Your task to perform on an android device: toggle notification dots Image 0: 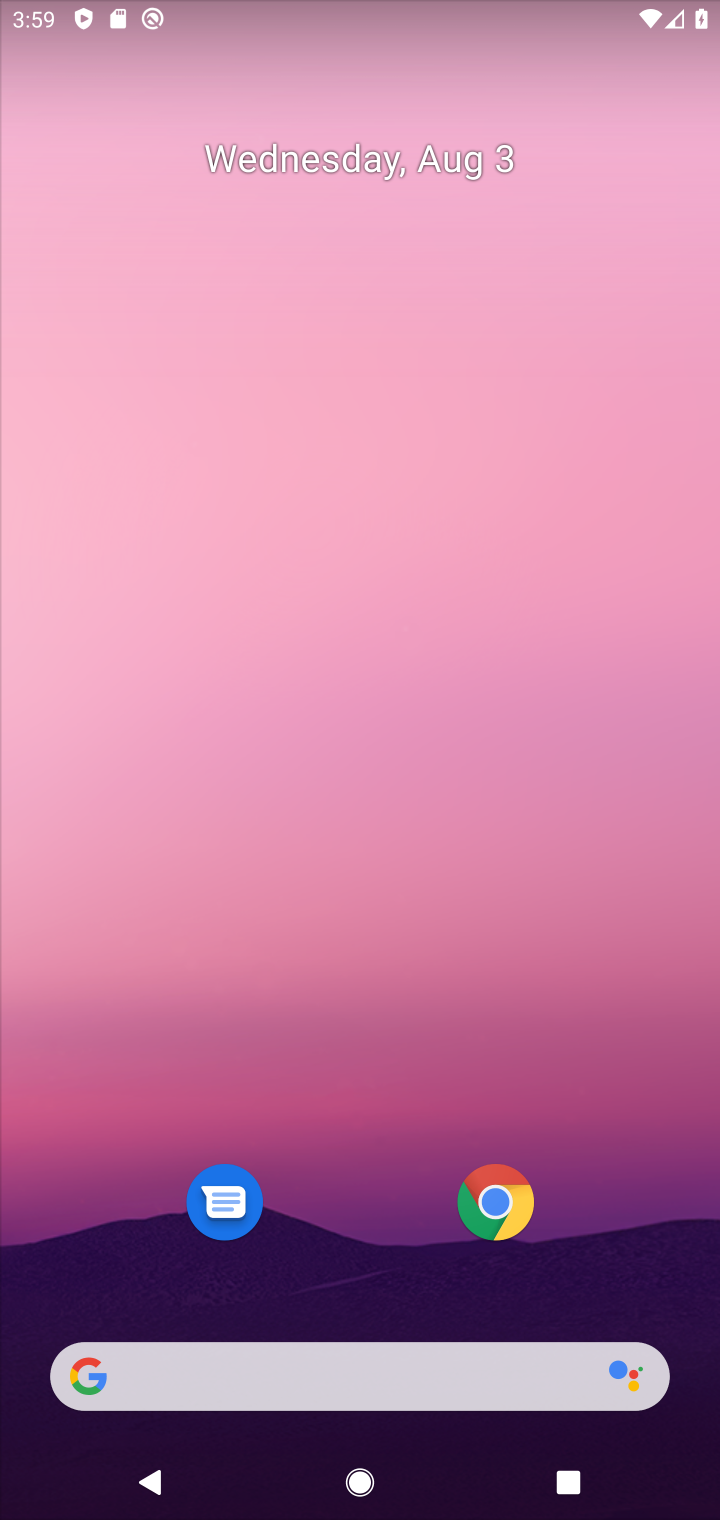
Step 0: drag from (468, 959) to (629, 125)
Your task to perform on an android device: toggle notification dots Image 1: 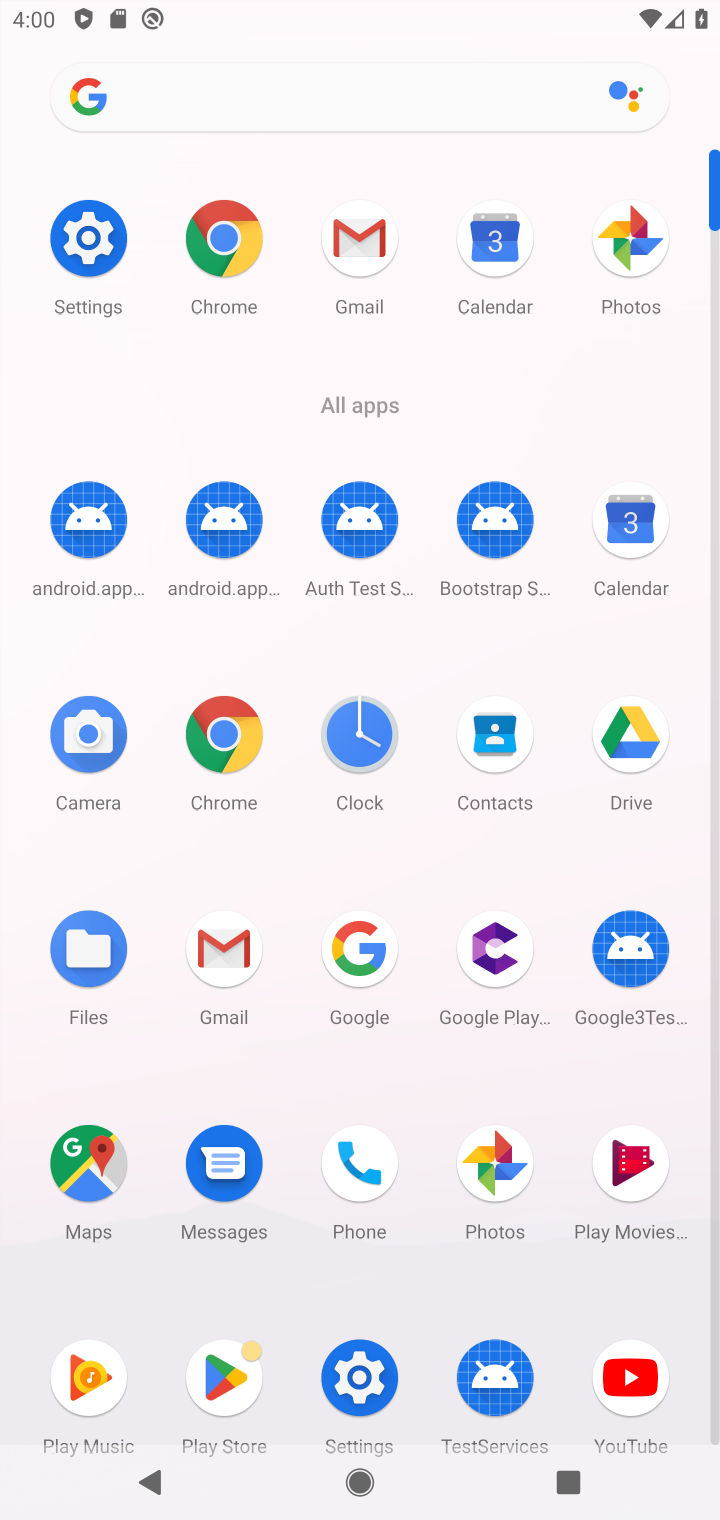
Step 1: click (98, 236)
Your task to perform on an android device: toggle notification dots Image 2: 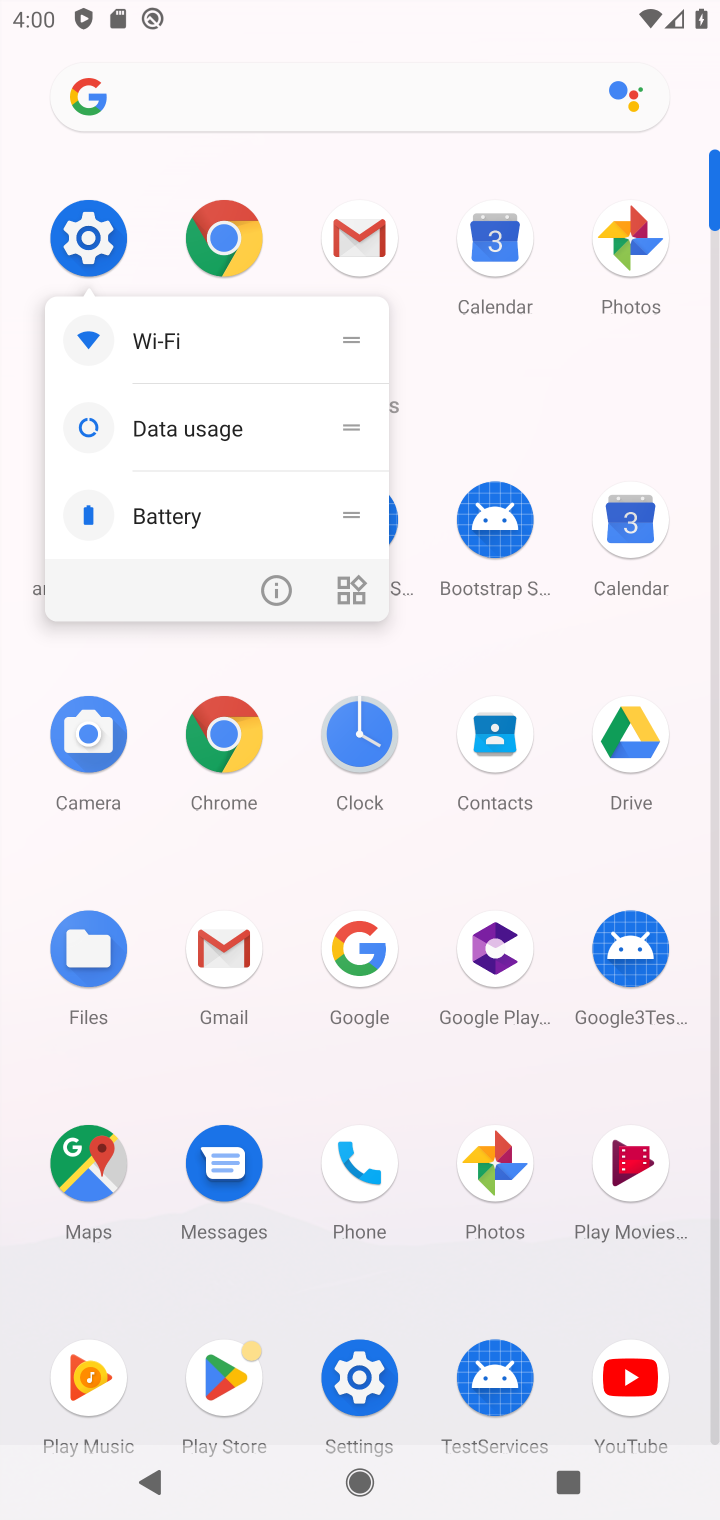
Step 2: click (80, 236)
Your task to perform on an android device: toggle notification dots Image 3: 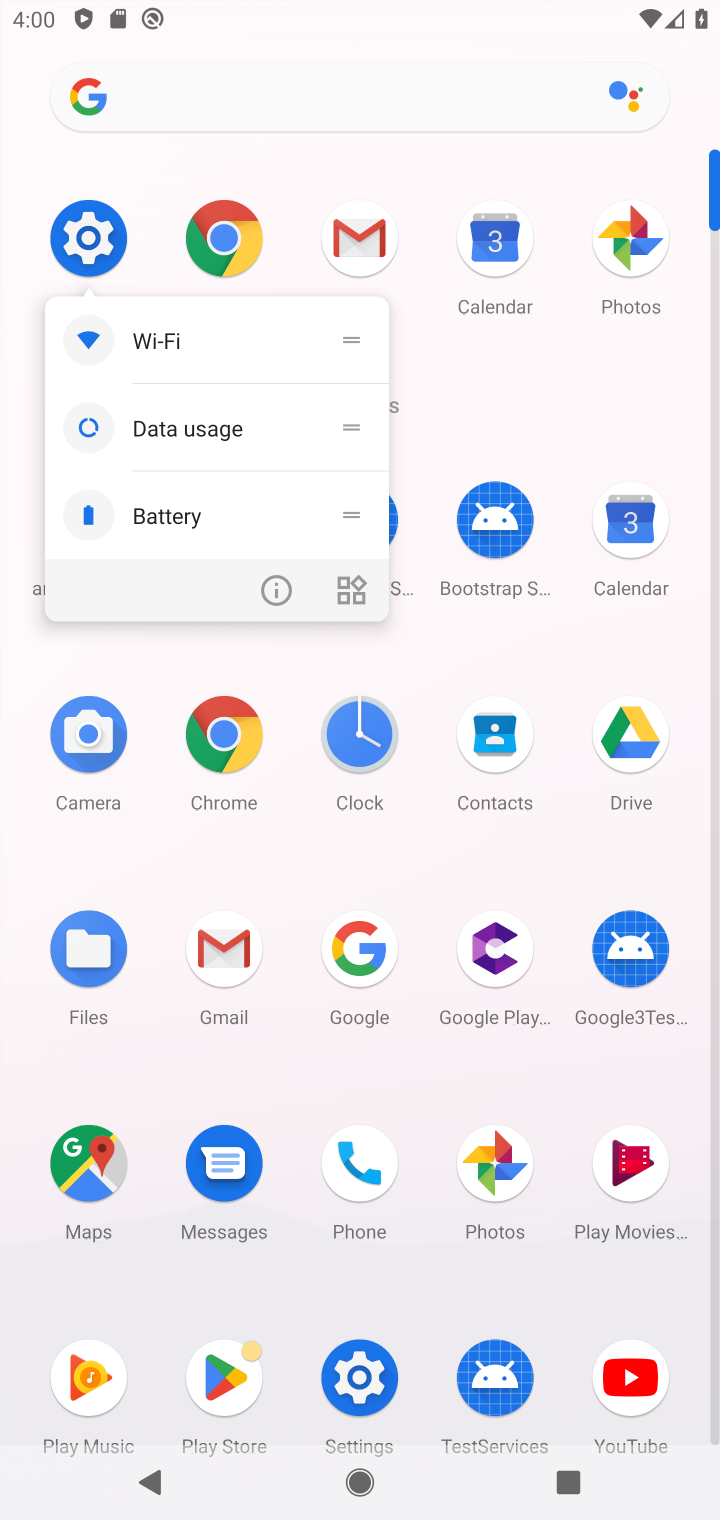
Step 3: click (94, 236)
Your task to perform on an android device: toggle notification dots Image 4: 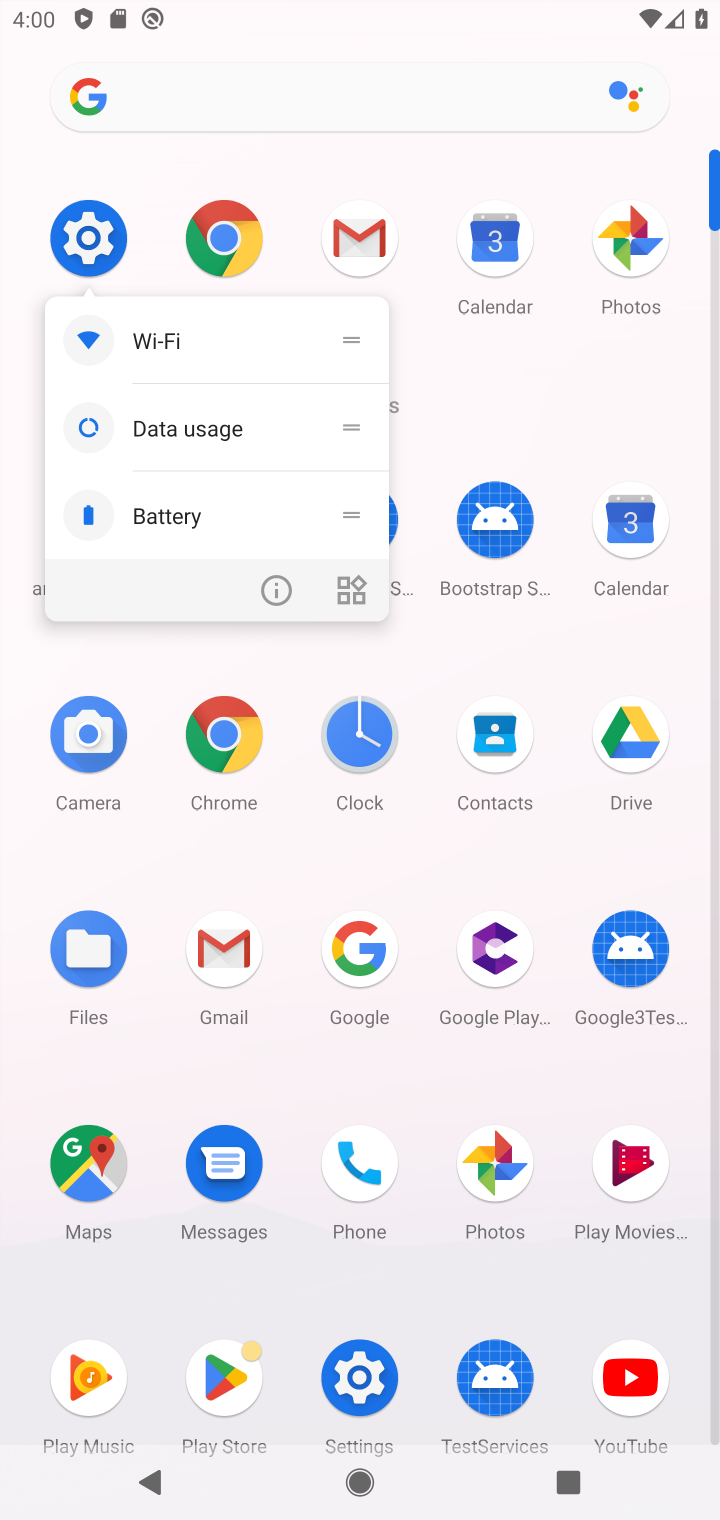
Step 4: click (94, 236)
Your task to perform on an android device: toggle notification dots Image 5: 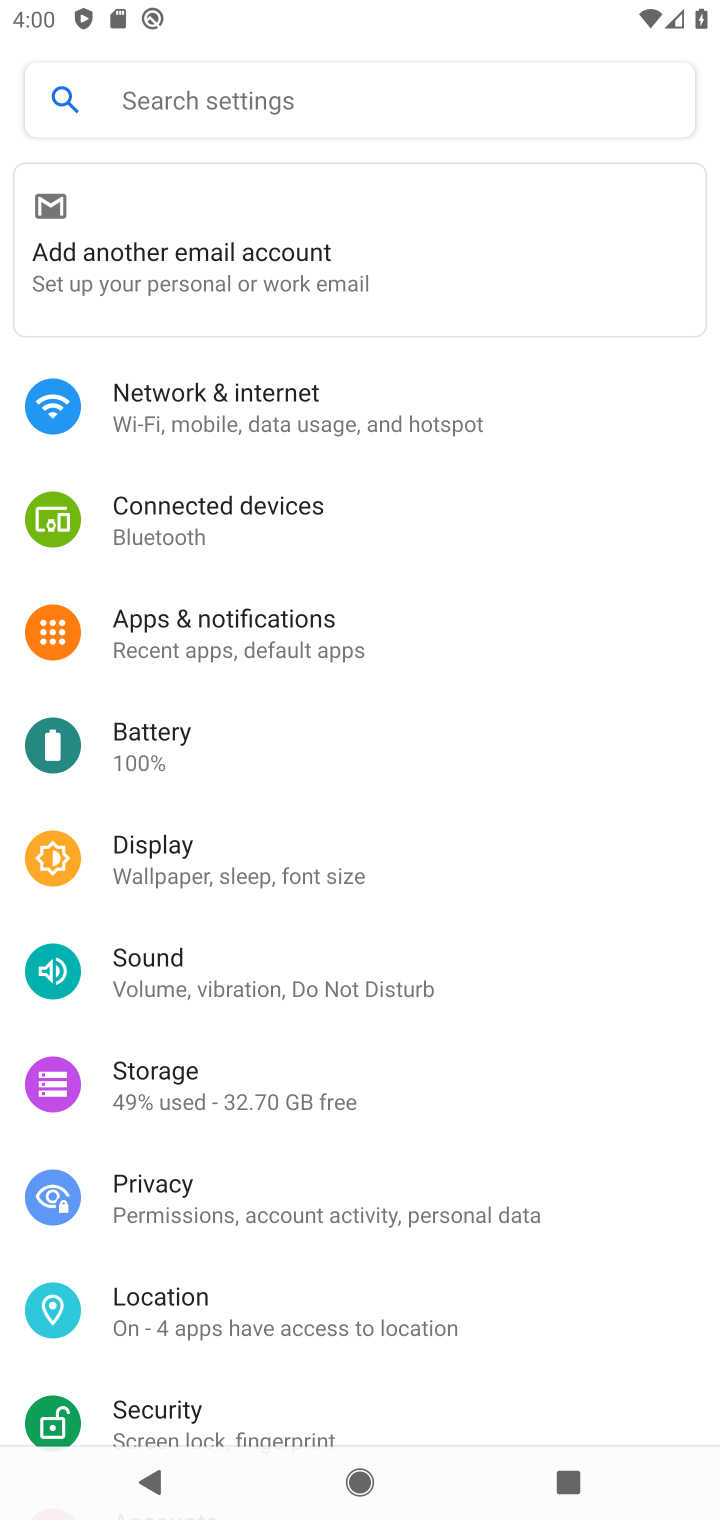
Step 5: click (282, 448)
Your task to perform on an android device: toggle notification dots Image 6: 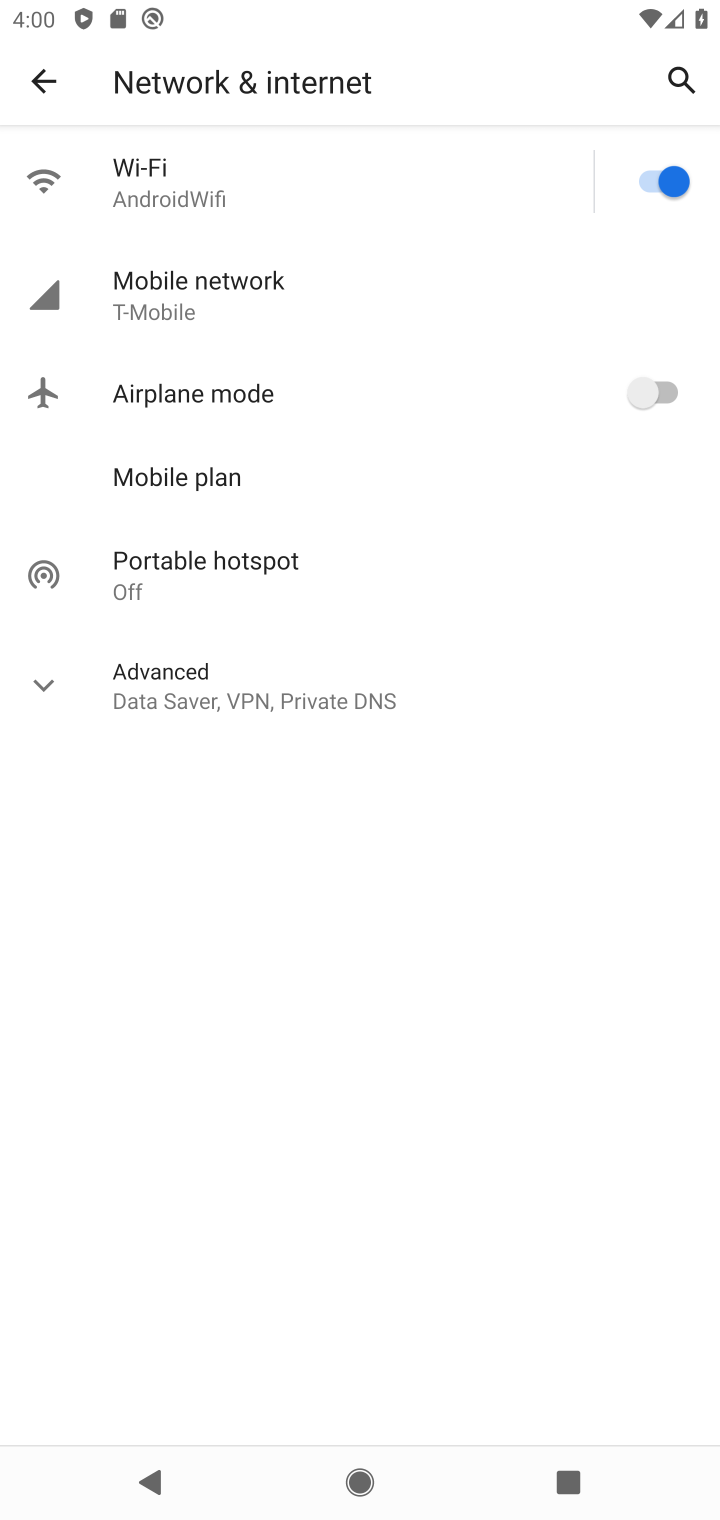
Step 6: click (59, 90)
Your task to perform on an android device: toggle notification dots Image 7: 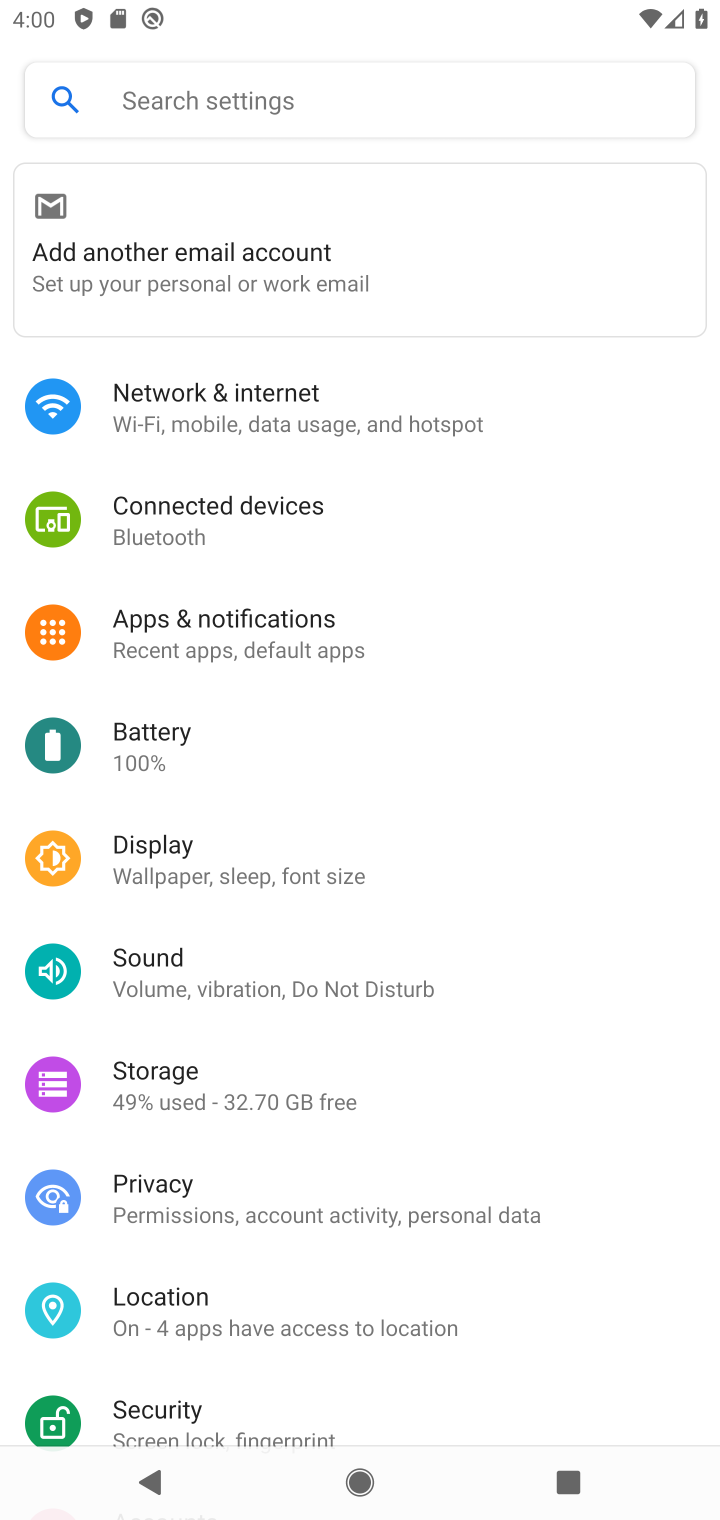
Step 7: click (249, 650)
Your task to perform on an android device: toggle notification dots Image 8: 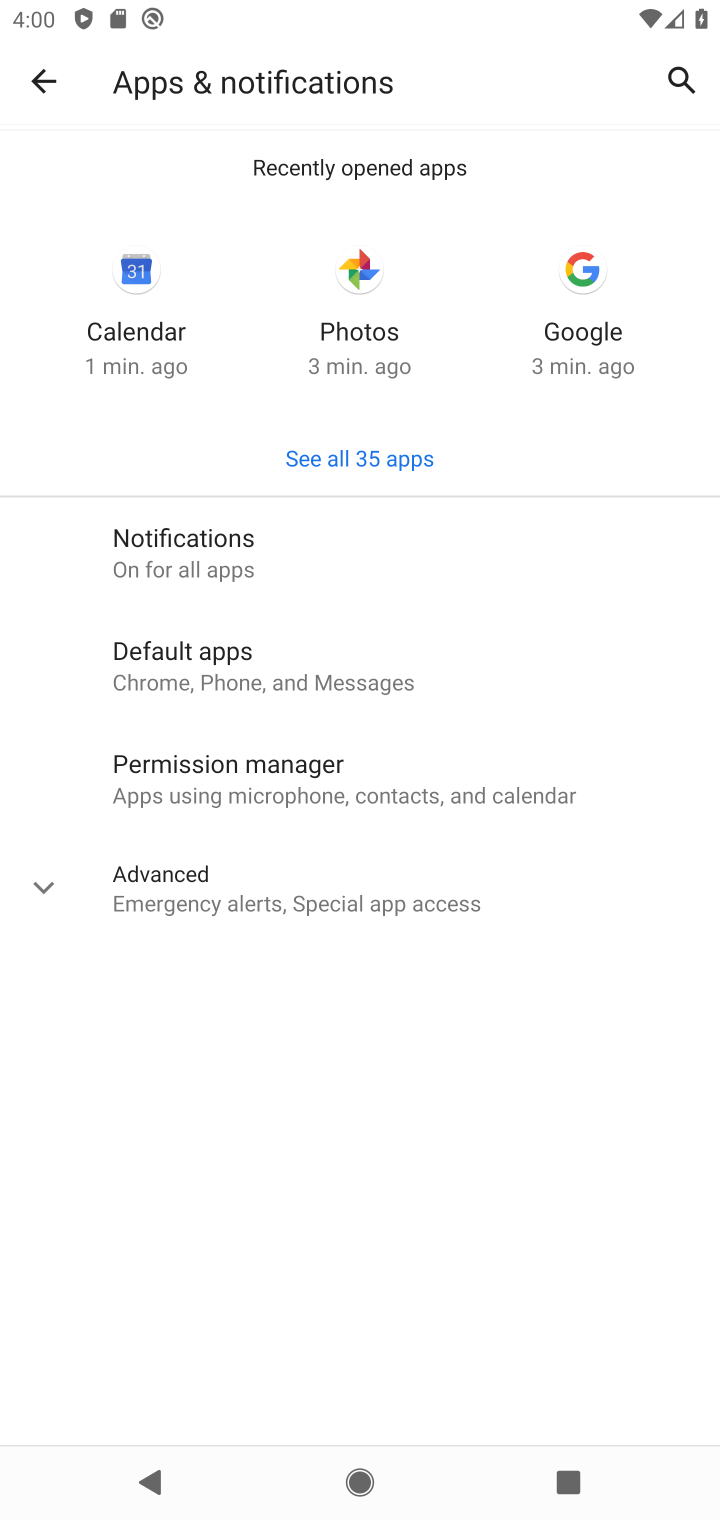
Step 8: click (278, 547)
Your task to perform on an android device: toggle notification dots Image 9: 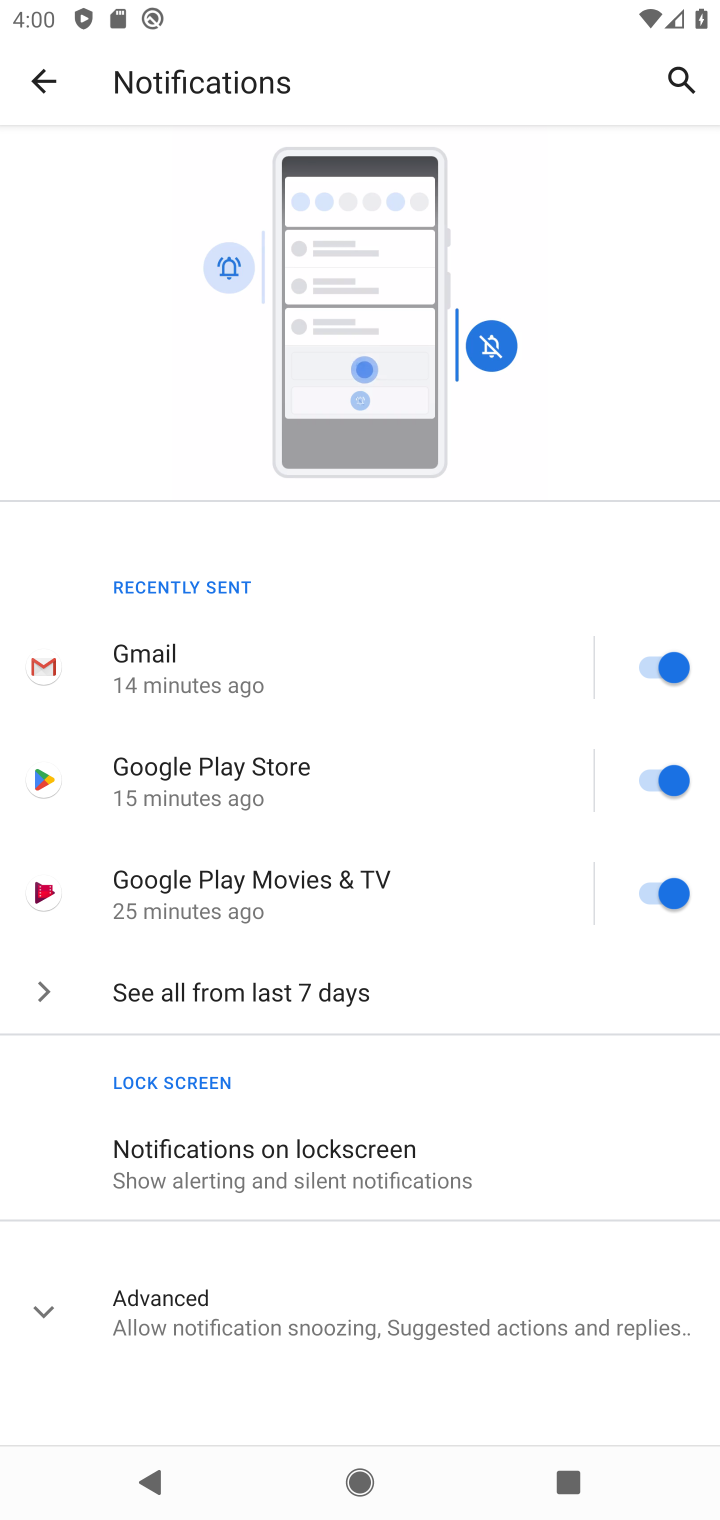
Step 9: drag from (386, 1268) to (442, 660)
Your task to perform on an android device: toggle notification dots Image 10: 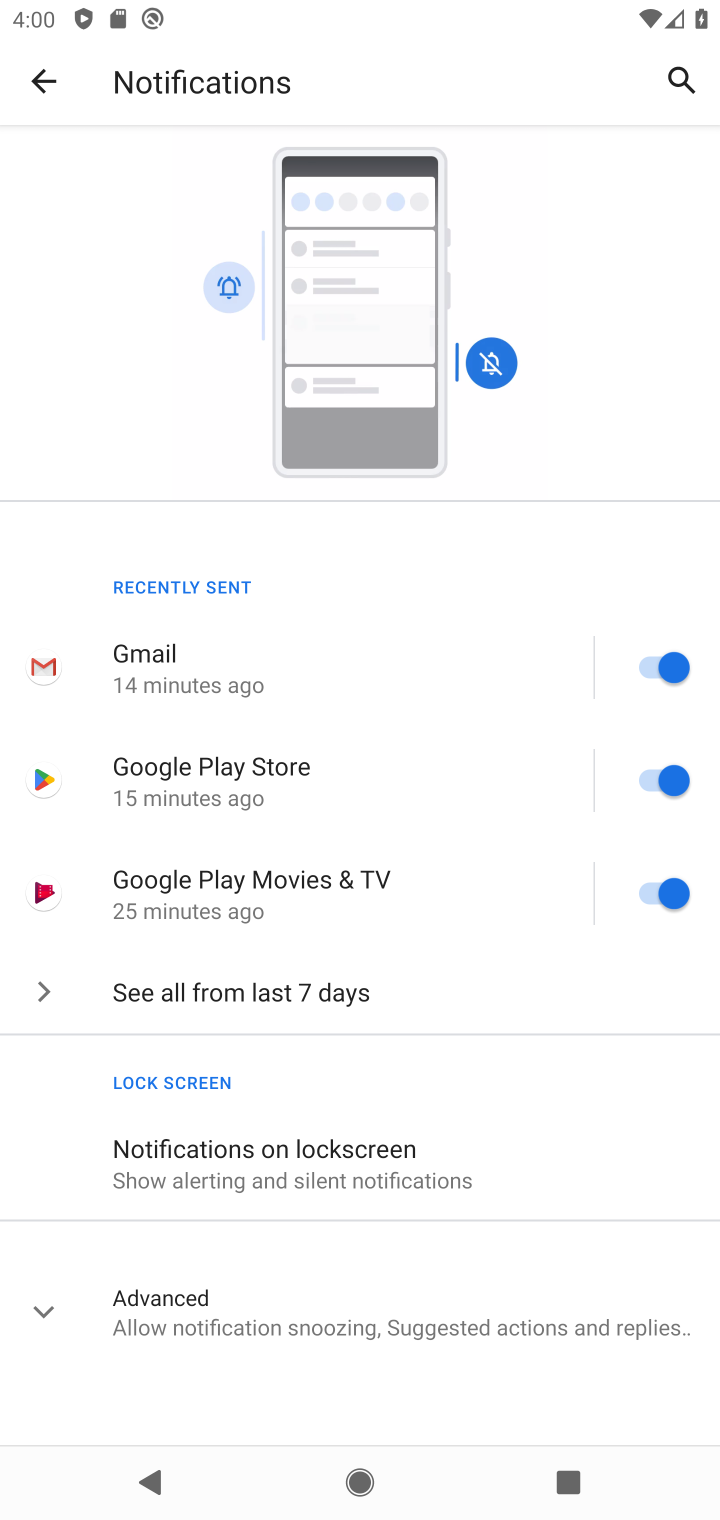
Step 10: click (284, 1284)
Your task to perform on an android device: toggle notification dots Image 11: 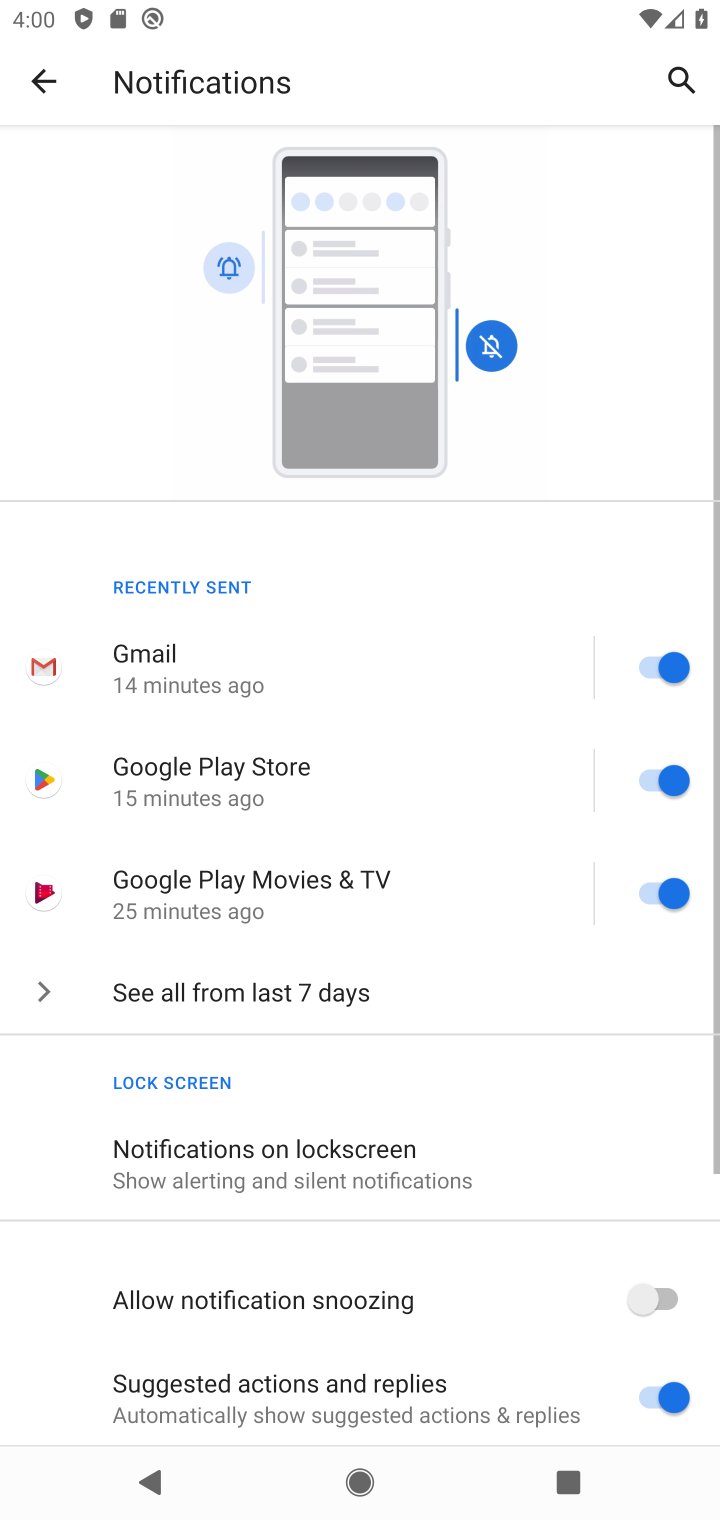
Step 11: drag from (435, 911) to (557, 203)
Your task to perform on an android device: toggle notification dots Image 12: 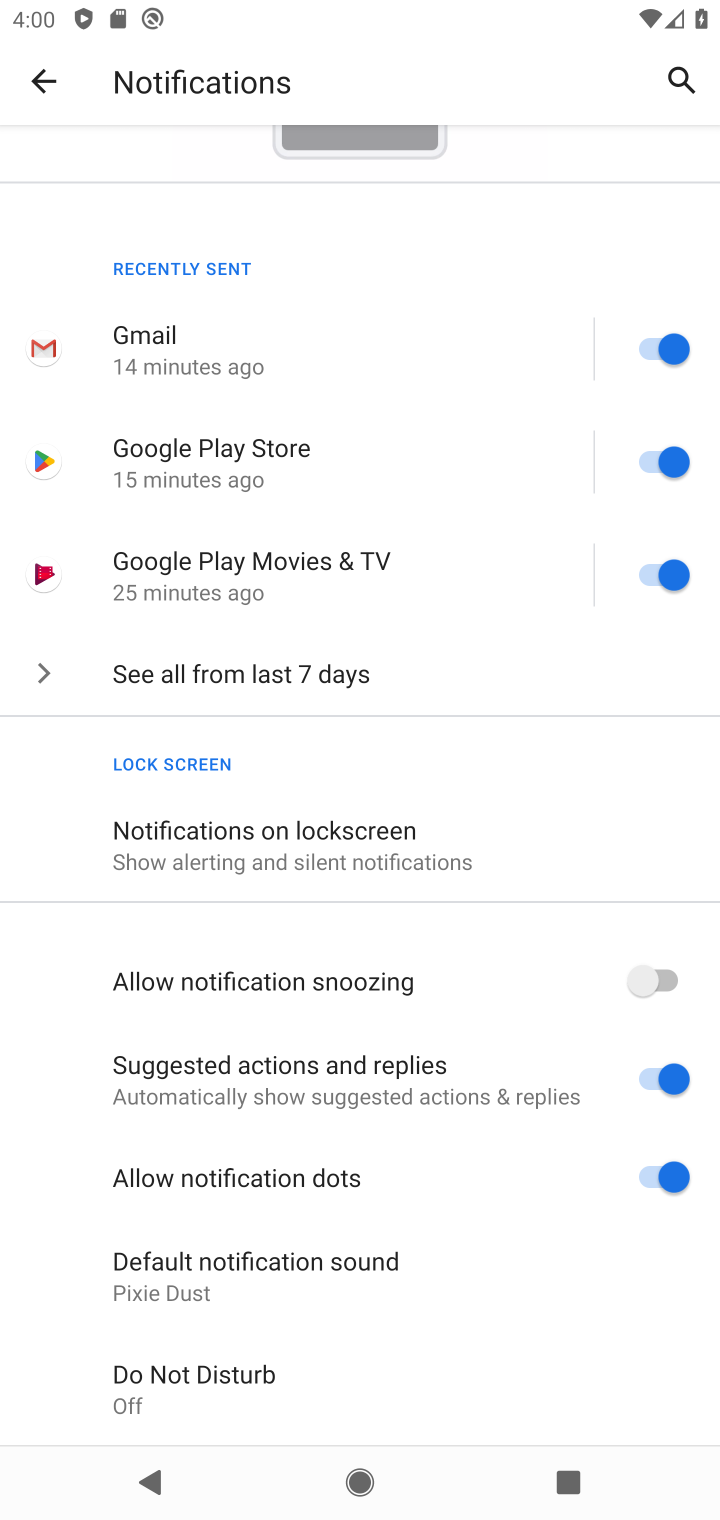
Step 12: click (676, 1172)
Your task to perform on an android device: toggle notification dots Image 13: 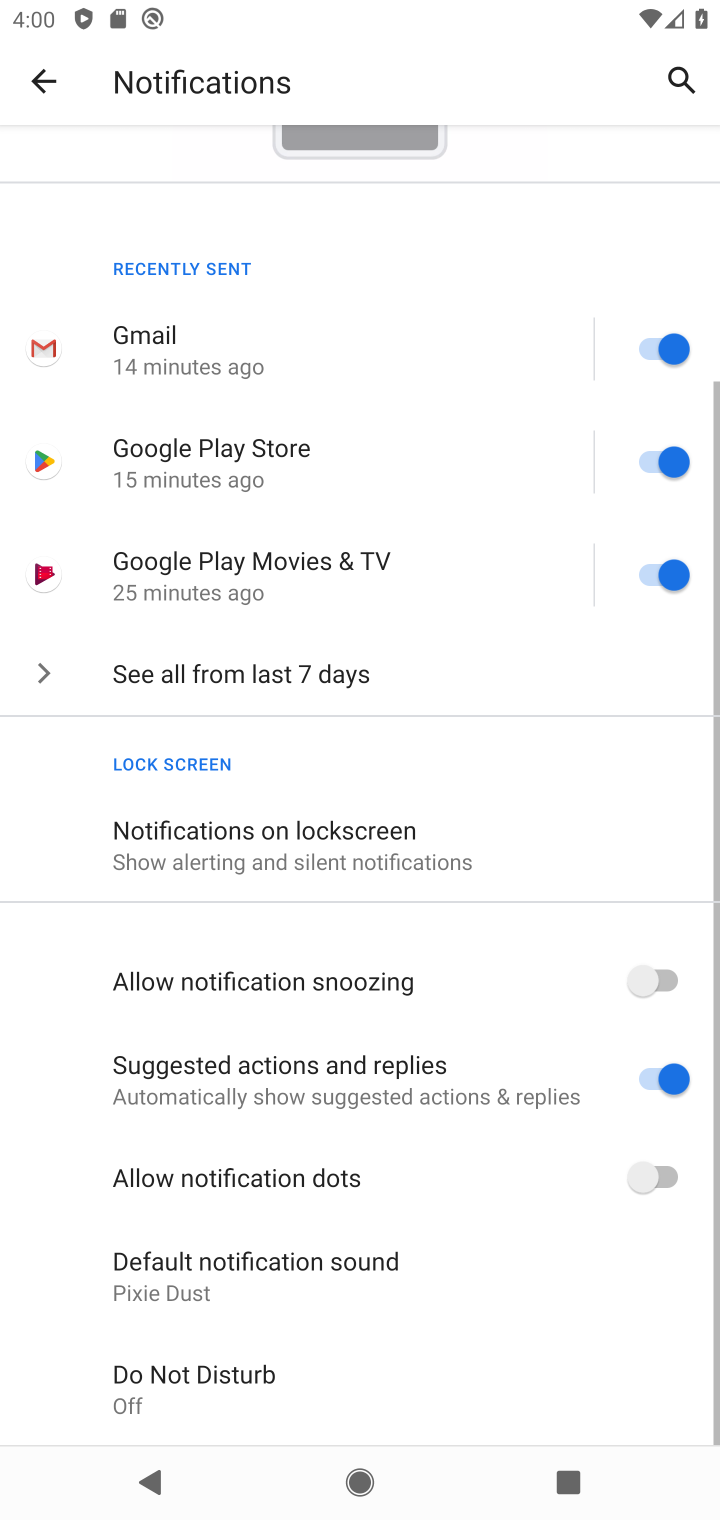
Step 13: task complete